Your task to perform on an android device: Turn on the flashlight Image 0: 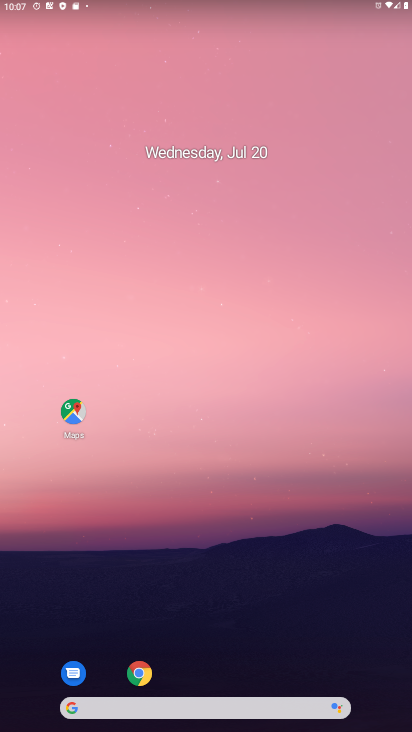
Step 0: drag from (188, 701) to (160, 305)
Your task to perform on an android device: Turn on the flashlight Image 1: 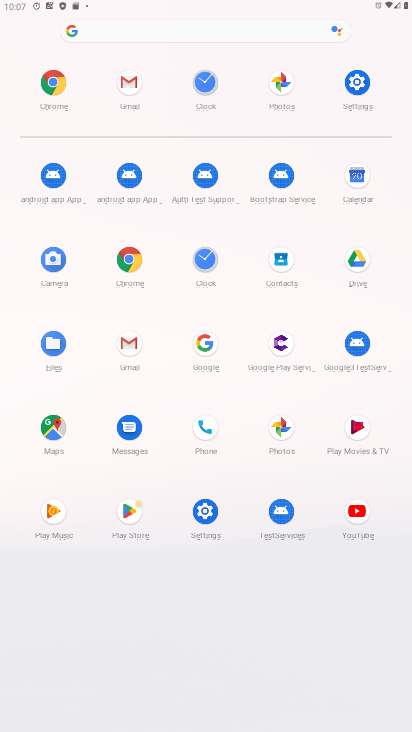
Step 1: click (360, 80)
Your task to perform on an android device: Turn on the flashlight Image 2: 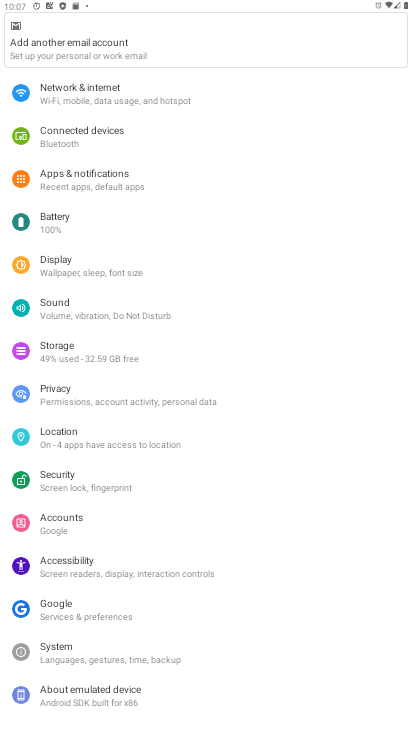
Step 2: task complete